Your task to perform on an android device: allow notifications from all sites in the chrome app Image 0: 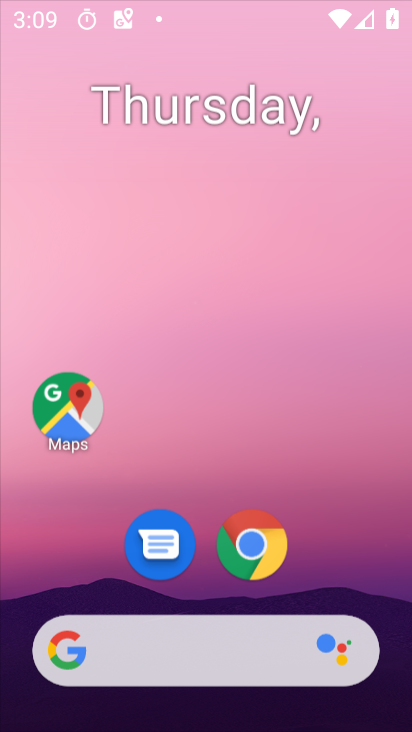
Step 0: drag from (250, 551) to (244, 69)
Your task to perform on an android device: allow notifications from all sites in the chrome app Image 1: 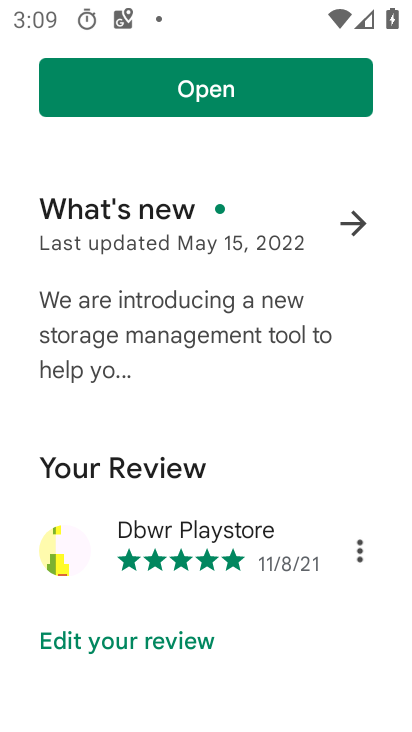
Step 1: press home button
Your task to perform on an android device: allow notifications from all sites in the chrome app Image 2: 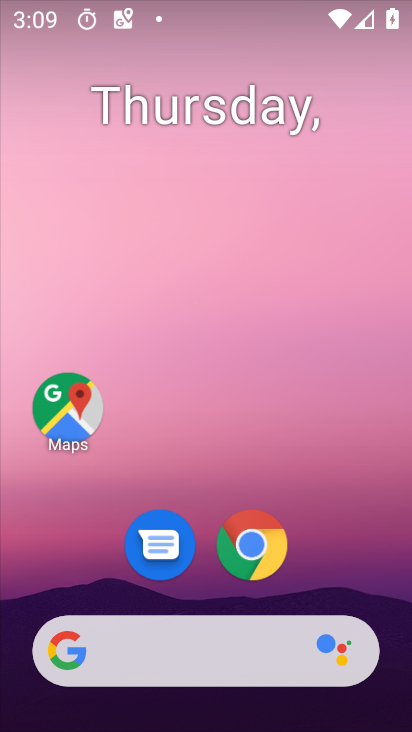
Step 2: click (250, 544)
Your task to perform on an android device: allow notifications from all sites in the chrome app Image 3: 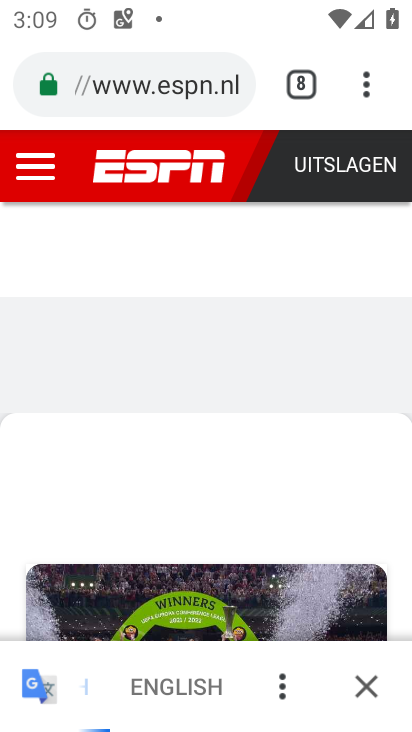
Step 3: click (367, 92)
Your task to perform on an android device: allow notifications from all sites in the chrome app Image 4: 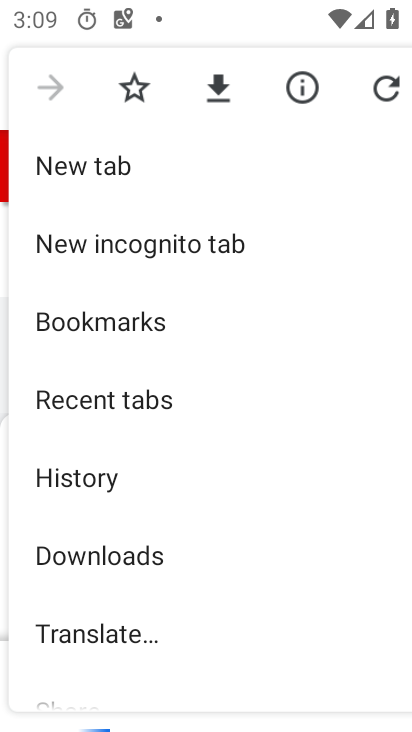
Step 4: drag from (134, 660) to (149, 243)
Your task to perform on an android device: allow notifications from all sites in the chrome app Image 5: 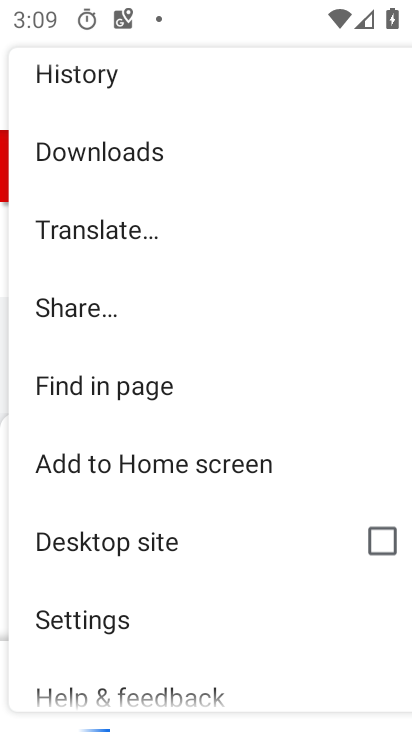
Step 5: click (80, 621)
Your task to perform on an android device: allow notifications from all sites in the chrome app Image 6: 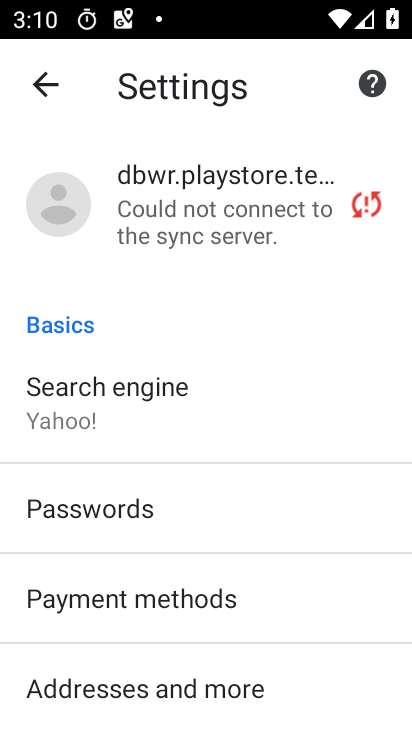
Step 6: drag from (110, 676) to (111, 260)
Your task to perform on an android device: allow notifications from all sites in the chrome app Image 7: 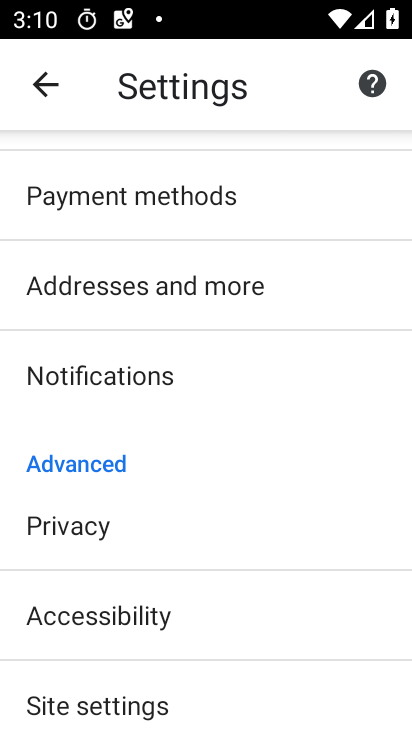
Step 7: drag from (131, 665) to (142, 273)
Your task to perform on an android device: allow notifications from all sites in the chrome app Image 8: 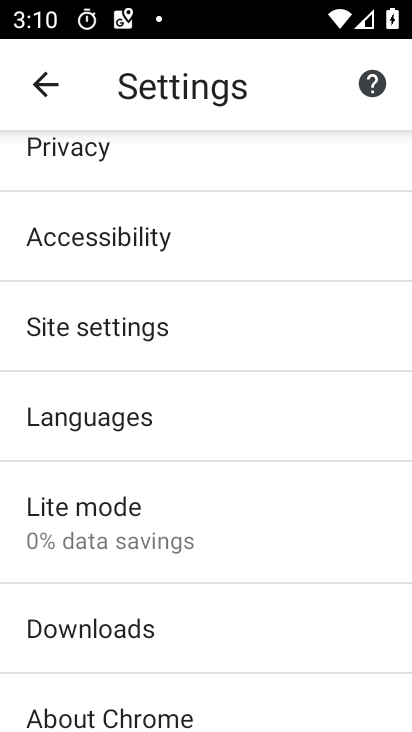
Step 8: click (95, 324)
Your task to perform on an android device: allow notifications from all sites in the chrome app Image 9: 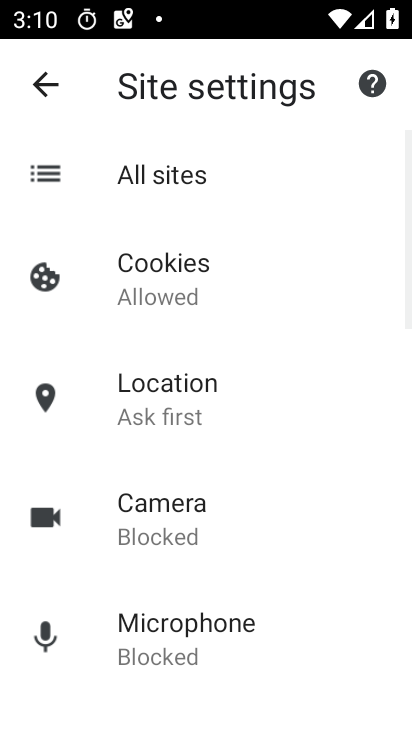
Step 9: drag from (187, 640) to (193, 223)
Your task to perform on an android device: allow notifications from all sites in the chrome app Image 10: 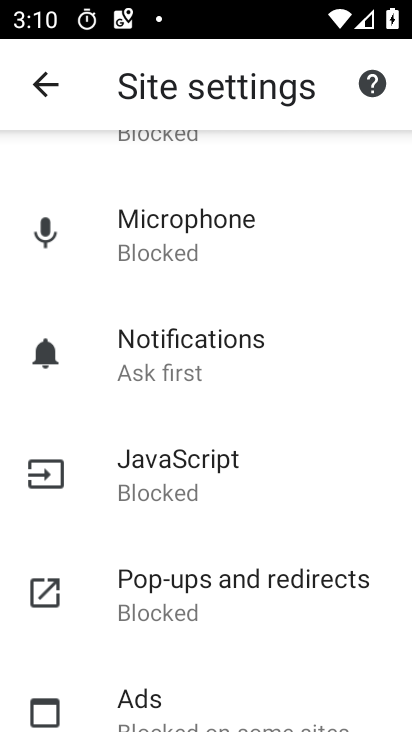
Step 10: click (181, 340)
Your task to perform on an android device: allow notifications from all sites in the chrome app Image 11: 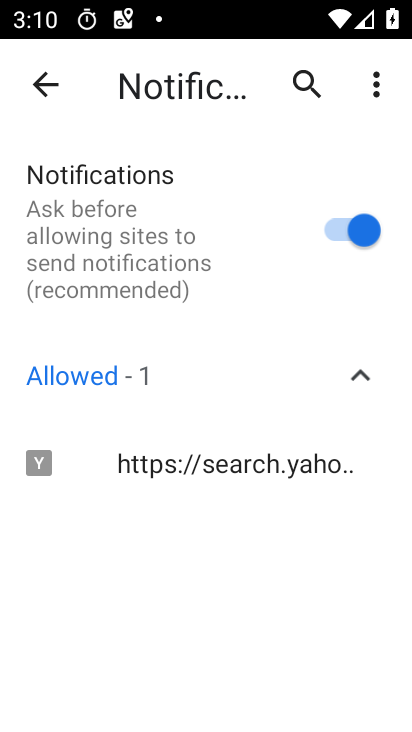
Step 11: click (47, 87)
Your task to perform on an android device: allow notifications from all sites in the chrome app Image 12: 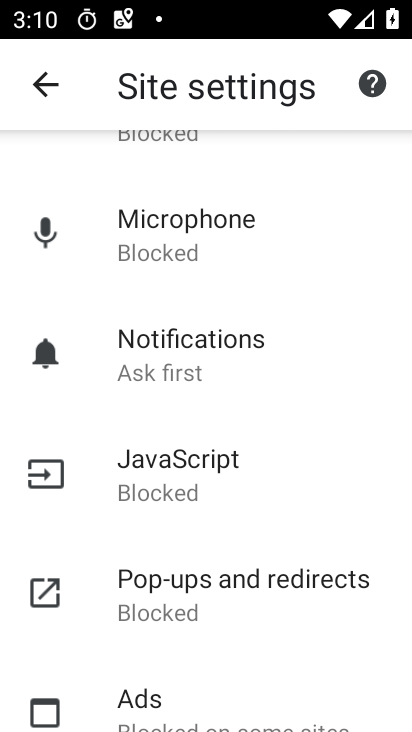
Step 12: task complete